Your task to perform on an android device: toggle notification dots Image 0: 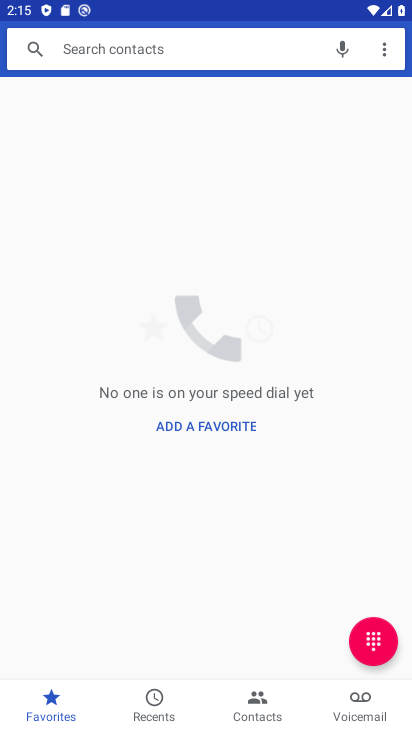
Step 0: press home button
Your task to perform on an android device: toggle notification dots Image 1: 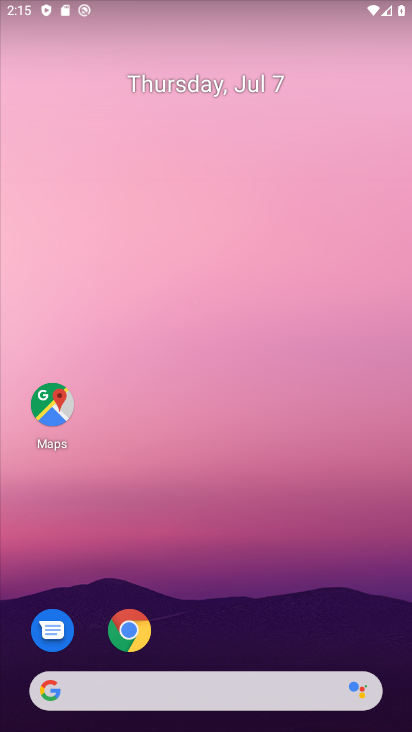
Step 1: drag from (198, 646) to (264, 182)
Your task to perform on an android device: toggle notification dots Image 2: 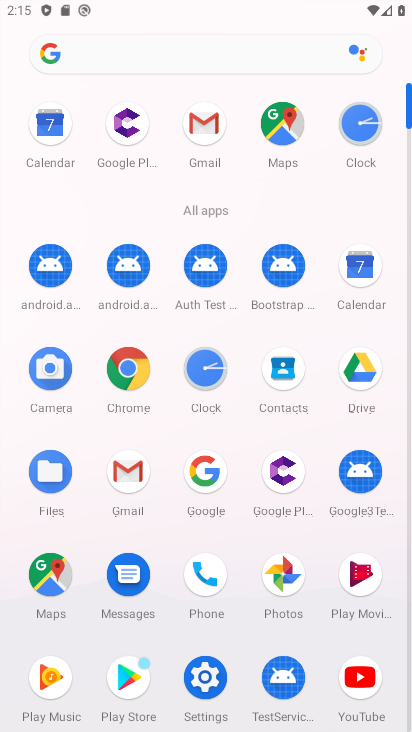
Step 2: click (195, 682)
Your task to perform on an android device: toggle notification dots Image 3: 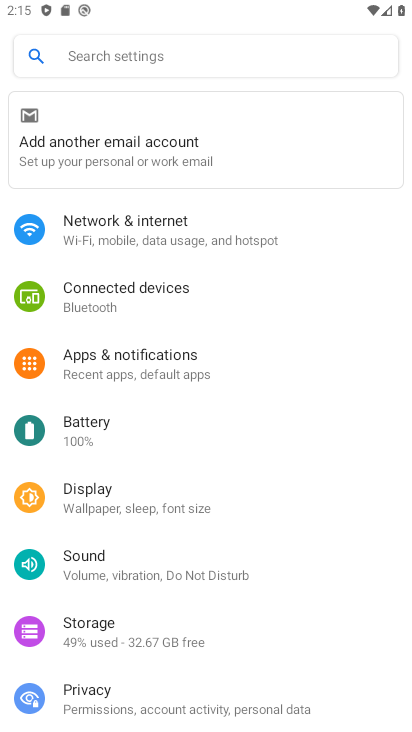
Step 3: click (182, 362)
Your task to perform on an android device: toggle notification dots Image 4: 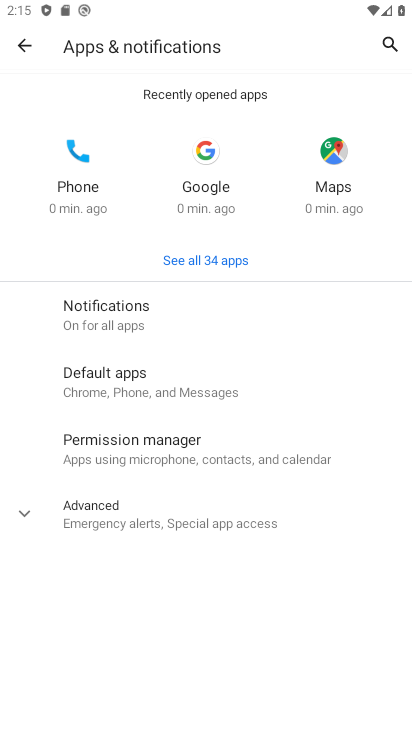
Step 4: click (101, 319)
Your task to perform on an android device: toggle notification dots Image 5: 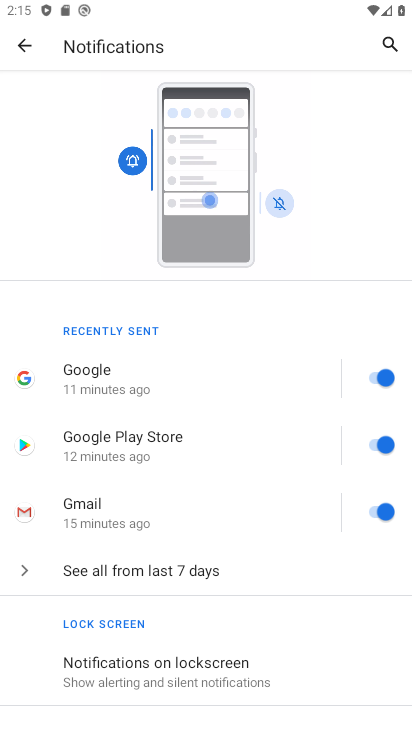
Step 5: drag from (237, 691) to (236, 317)
Your task to perform on an android device: toggle notification dots Image 6: 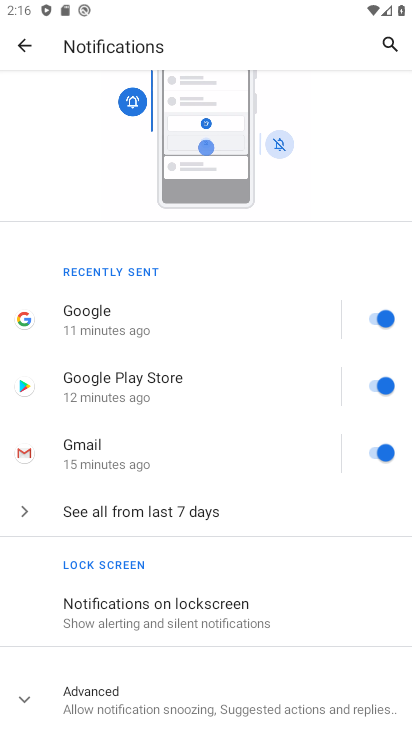
Step 6: click (82, 699)
Your task to perform on an android device: toggle notification dots Image 7: 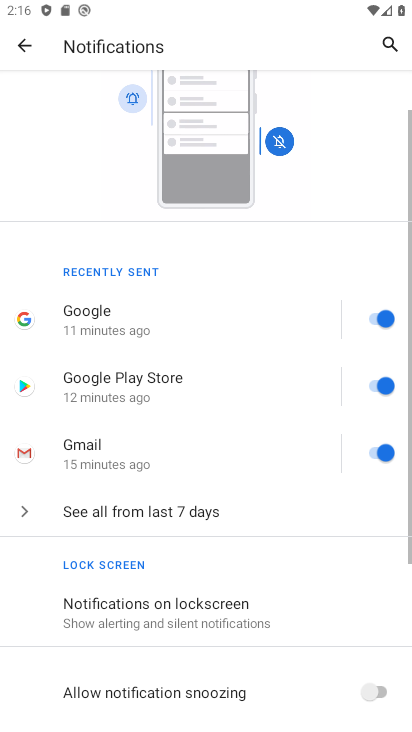
Step 7: drag from (221, 681) to (277, 332)
Your task to perform on an android device: toggle notification dots Image 8: 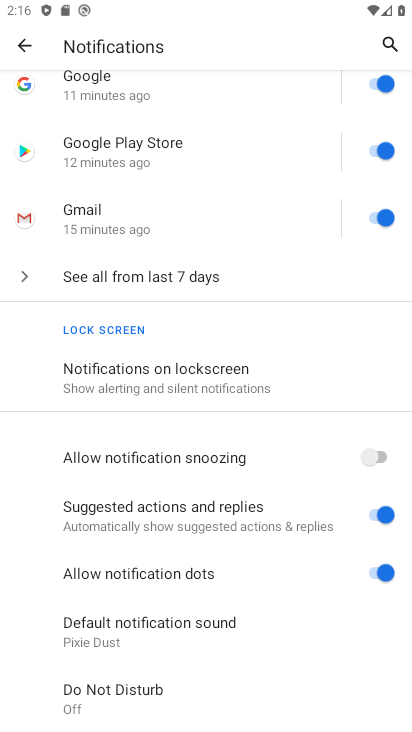
Step 8: click (377, 575)
Your task to perform on an android device: toggle notification dots Image 9: 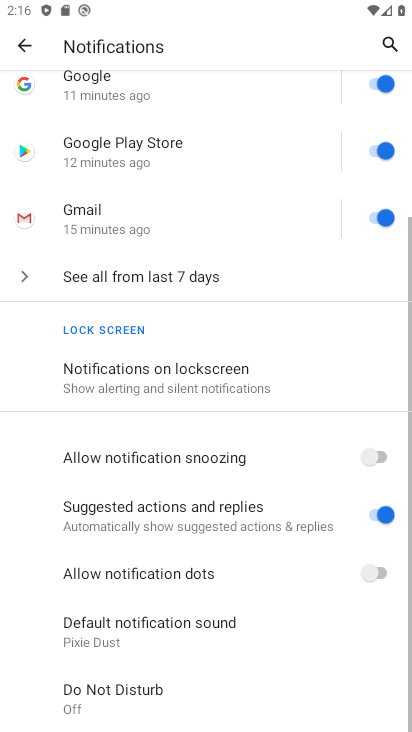
Step 9: task complete